Your task to perform on an android device: What is the recent news? Image 0: 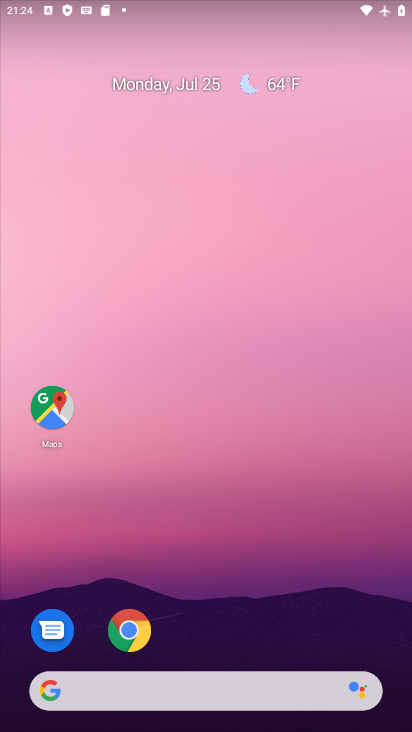
Step 0: drag from (6, 291) to (391, 337)
Your task to perform on an android device: What is the recent news? Image 1: 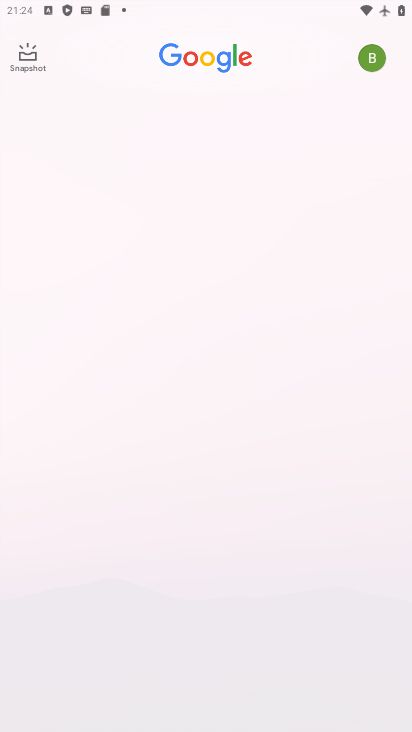
Step 1: task complete